Your task to perform on an android device: Go to notification settings Image 0: 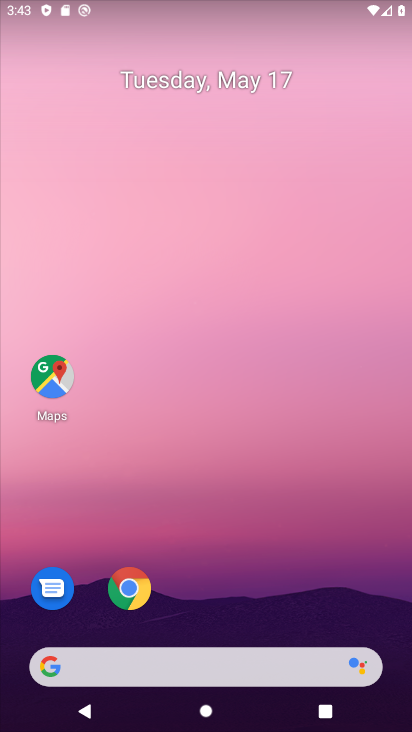
Step 0: drag from (230, 536) to (212, 0)
Your task to perform on an android device: Go to notification settings Image 1: 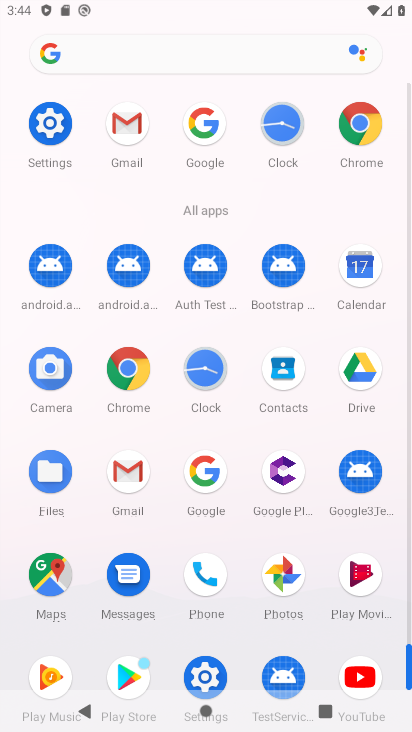
Step 1: drag from (161, 349) to (166, 191)
Your task to perform on an android device: Go to notification settings Image 2: 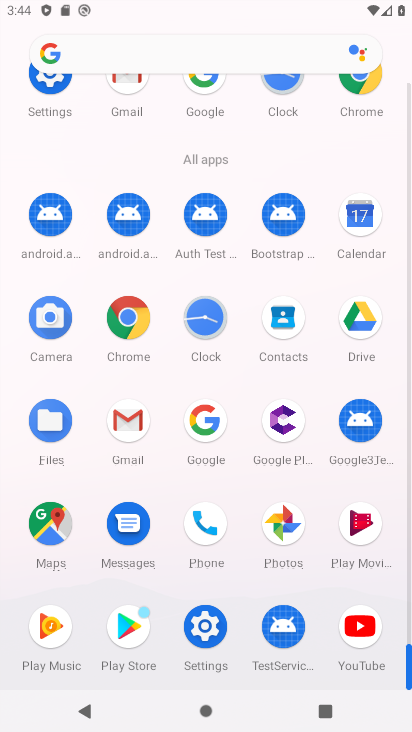
Step 2: click (204, 627)
Your task to perform on an android device: Go to notification settings Image 3: 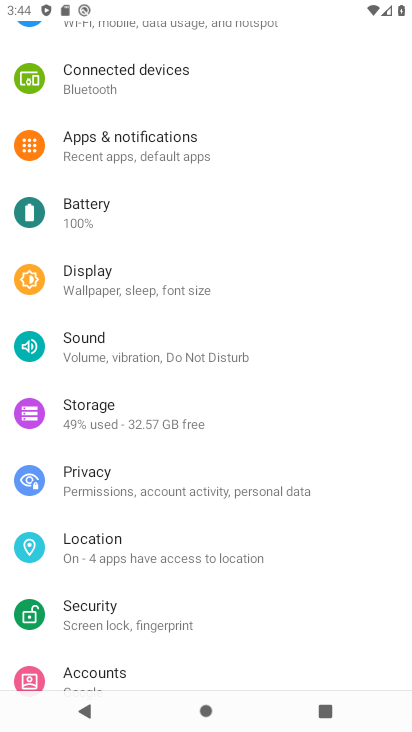
Step 3: drag from (155, 224) to (121, 329)
Your task to perform on an android device: Go to notification settings Image 4: 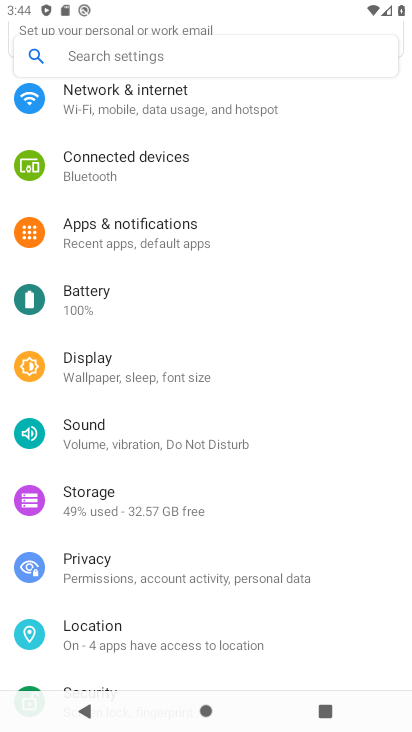
Step 4: click (162, 220)
Your task to perform on an android device: Go to notification settings Image 5: 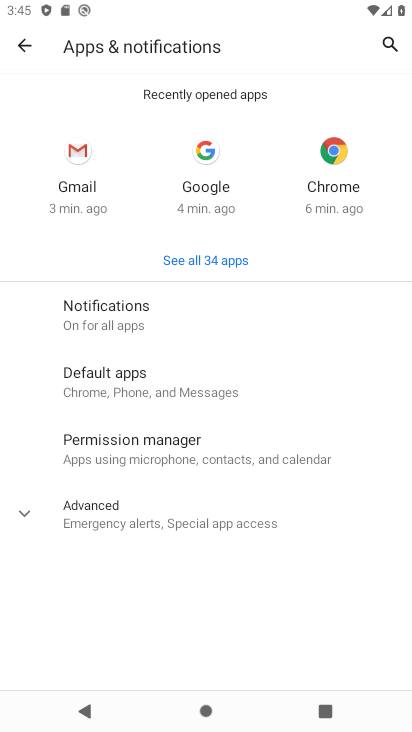
Step 5: click (123, 315)
Your task to perform on an android device: Go to notification settings Image 6: 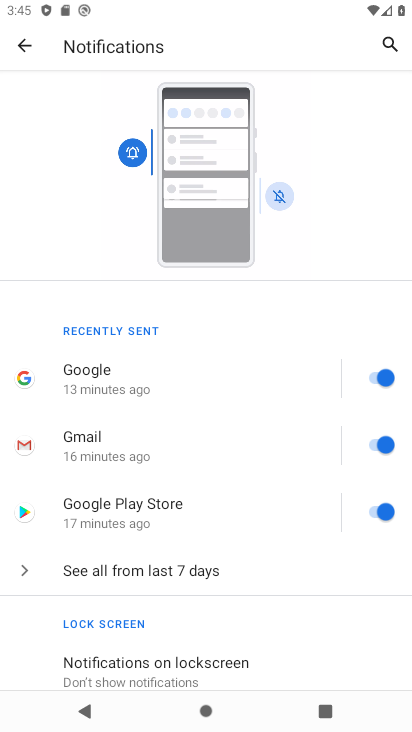
Step 6: task complete